Your task to perform on an android device: Open sound settings Image 0: 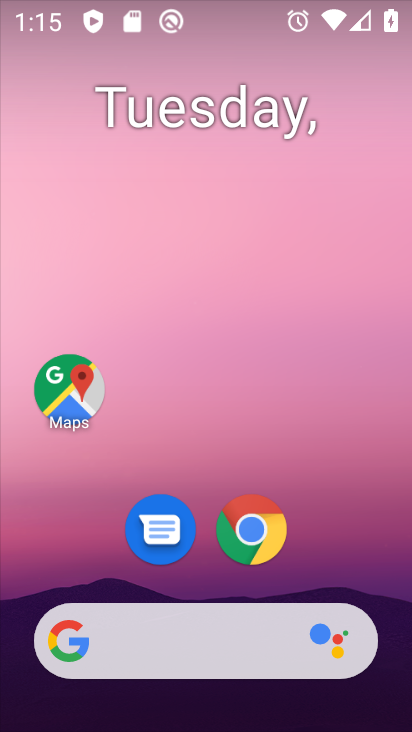
Step 0: drag from (403, 624) to (314, 58)
Your task to perform on an android device: Open sound settings Image 1: 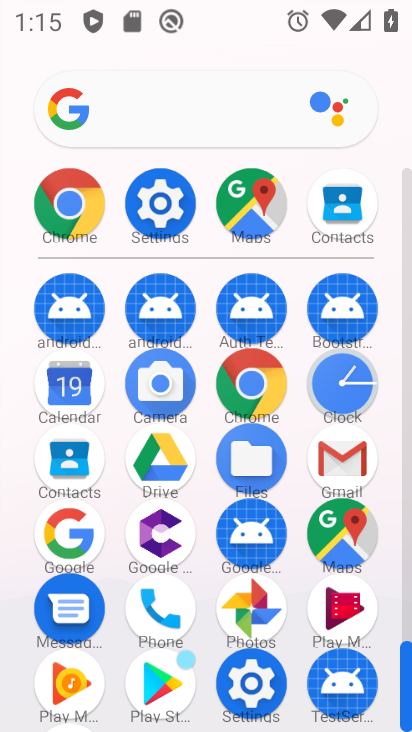
Step 1: click (241, 684)
Your task to perform on an android device: Open sound settings Image 2: 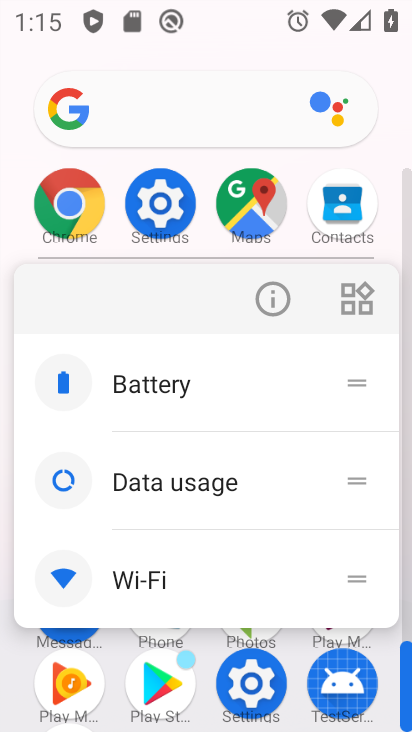
Step 2: click (241, 684)
Your task to perform on an android device: Open sound settings Image 3: 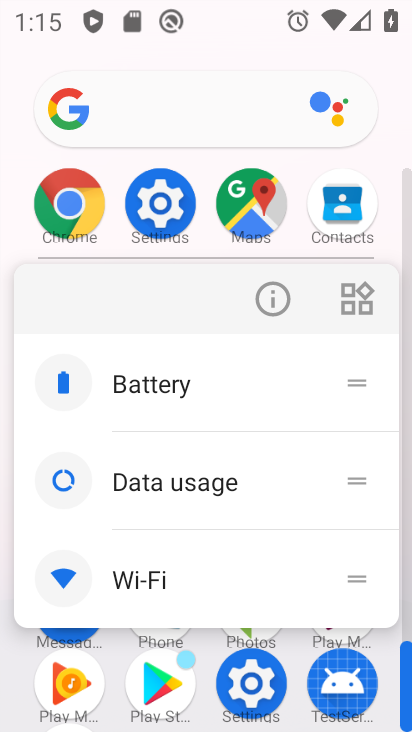
Step 3: click (241, 684)
Your task to perform on an android device: Open sound settings Image 4: 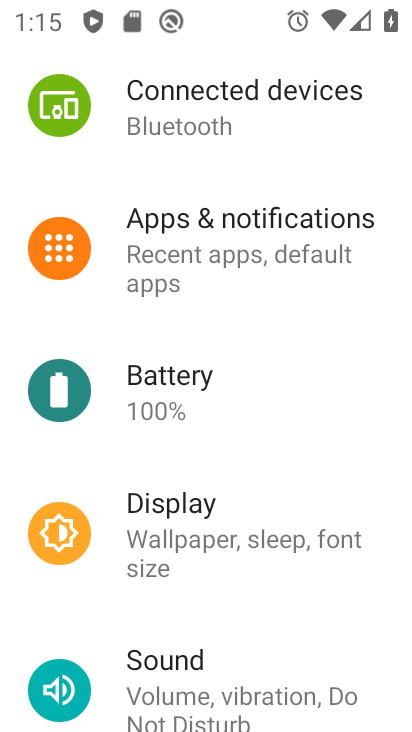
Step 4: click (228, 693)
Your task to perform on an android device: Open sound settings Image 5: 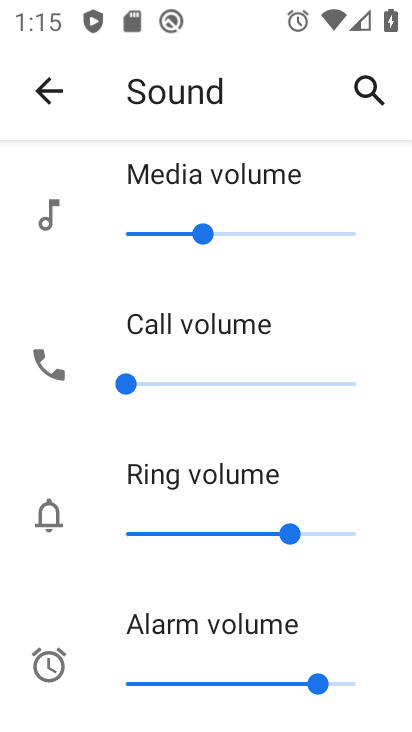
Step 5: task complete